Your task to perform on an android device: Show me productivity apps on the Play Store Image 0: 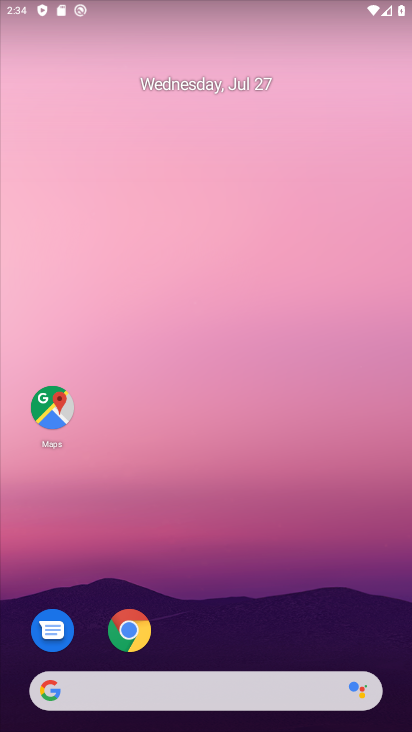
Step 0: press home button
Your task to perform on an android device: Show me productivity apps on the Play Store Image 1: 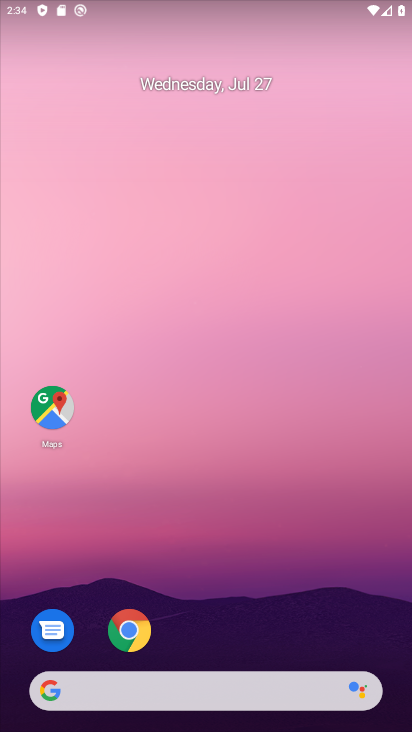
Step 1: drag from (257, 612) to (284, 209)
Your task to perform on an android device: Show me productivity apps on the Play Store Image 2: 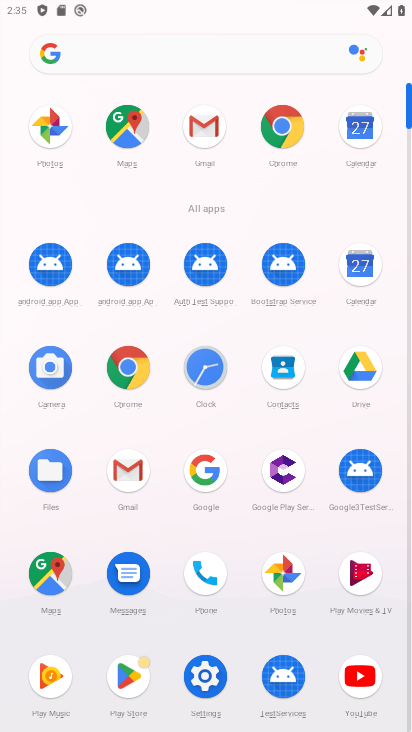
Step 2: click (131, 675)
Your task to perform on an android device: Show me productivity apps on the Play Store Image 3: 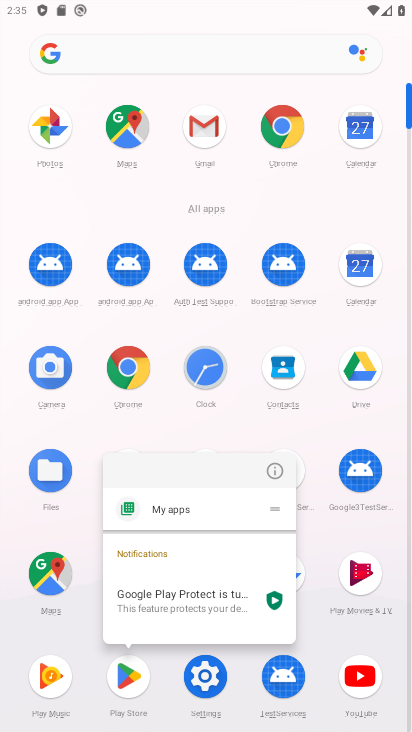
Step 3: click (135, 683)
Your task to perform on an android device: Show me productivity apps on the Play Store Image 4: 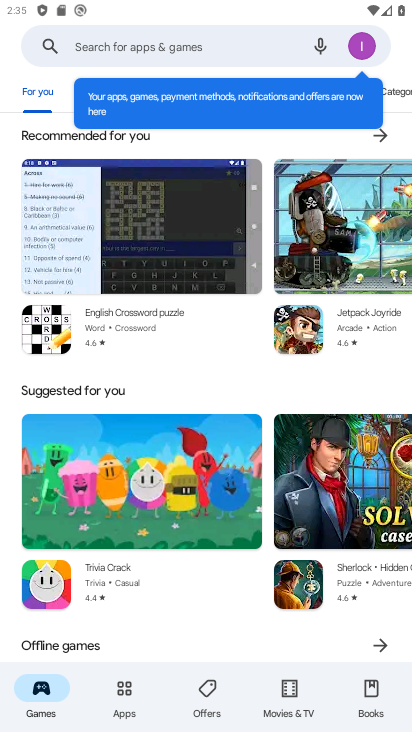
Step 4: click (132, 694)
Your task to perform on an android device: Show me productivity apps on the Play Store Image 5: 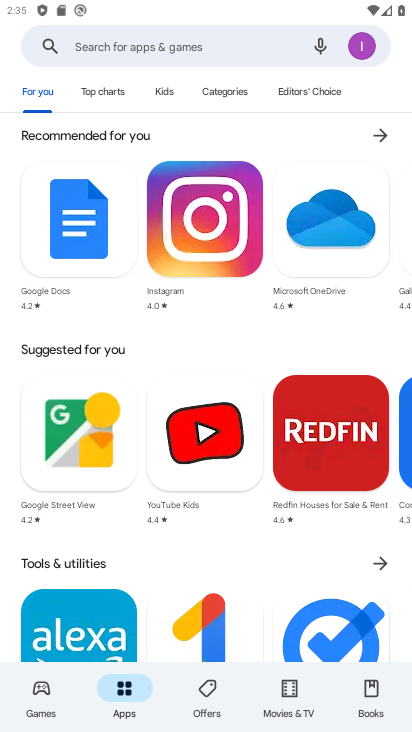
Step 5: click (217, 96)
Your task to perform on an android device: Show me productivity apps on the Play Store Image 6: 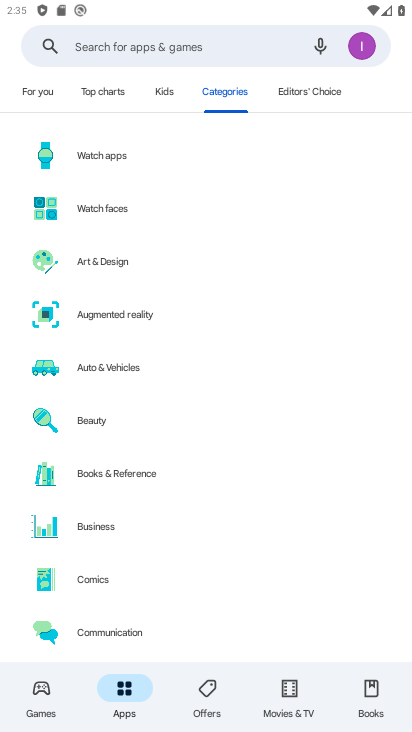
Step 6: drag from (192, 580) to (223, 165)
Your task to perform on an android device: Show me productivity apps on the Play Store Image 7: 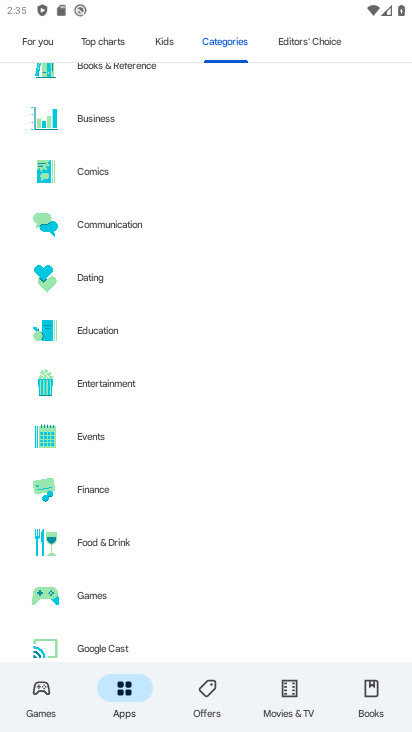
Step 7: drag from (275, 358) to (264, 179)
Your task to perform on an android device: Show me productivity apps on the Play Store Image 8: 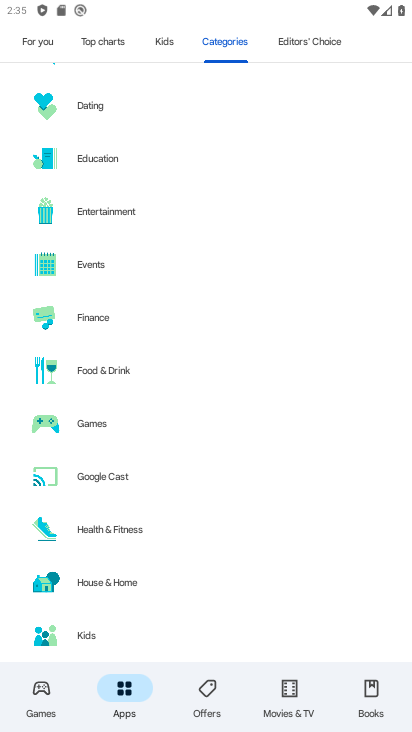
Step 8: drag from (273, 570) to (287, 24)
Your task to perform on an android device: Show me productivity apps on the Play Store Image 9: 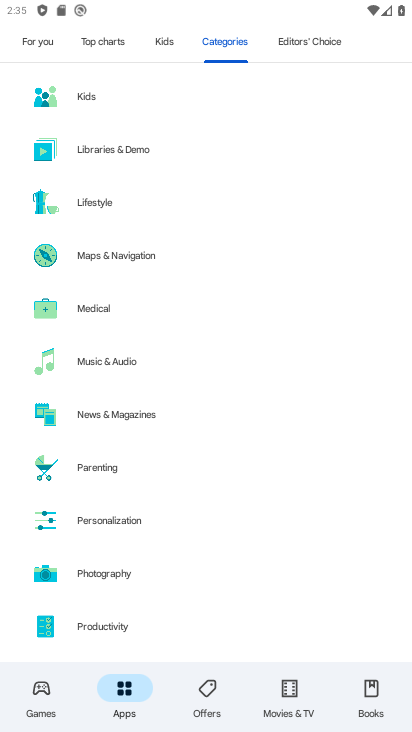
Step 9: click (98, 629)
Your task to perform on an android device: Show me productivity apps on the Play Store Image 10: 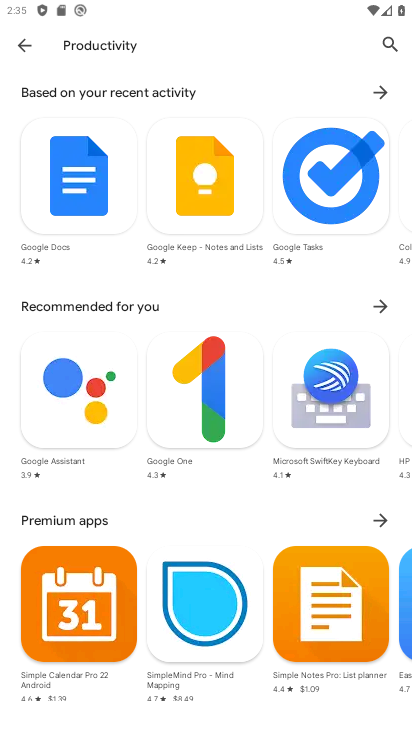
Step 10: task complete